Your task to perform on an android device: Search for Mexican restaurants on Maps Image 0: 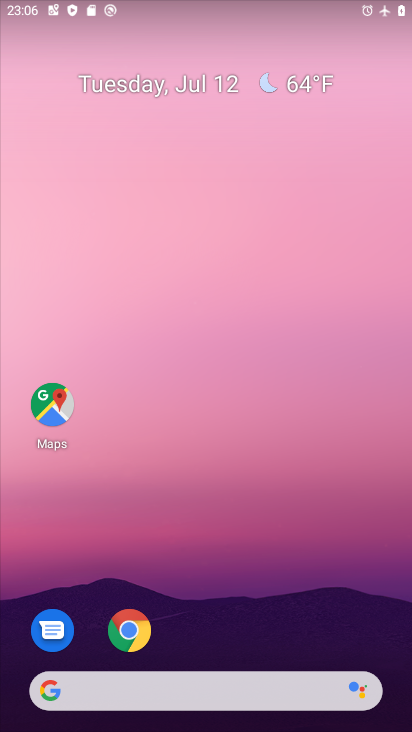
Step 0: drag from (200, 642) to (109, 116)
Your task to perform on an android device: Search for Mexican restaurants on Maps Image 1: 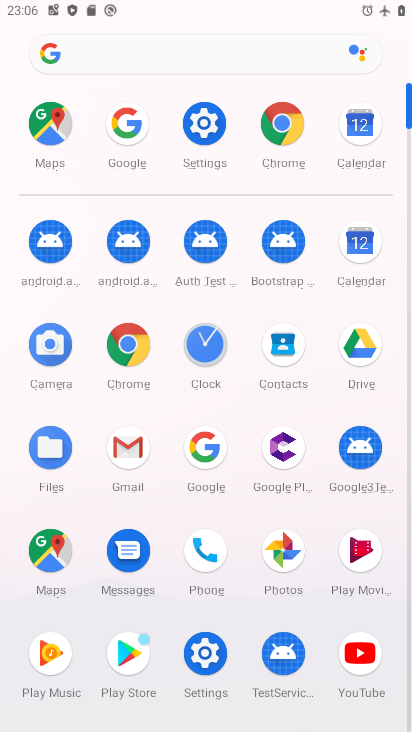
Step 1: click (32, 563)
Your task to perform on an android device: Search for Mexican restaurants on Maps Image 2: 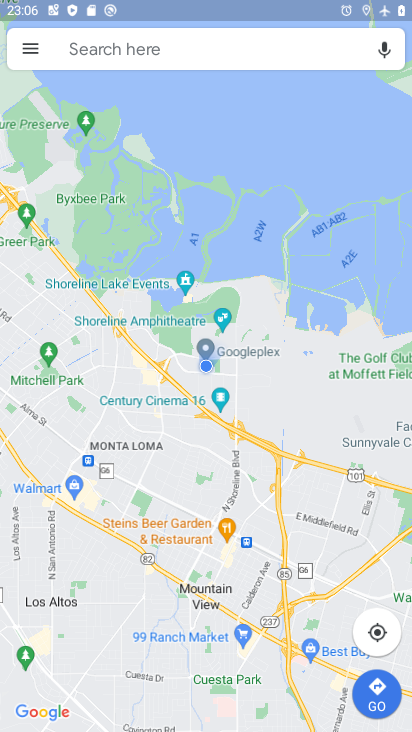
Step 2: click (185, 48)
Your task to perform on an android device: Search for Mexican restaurants on Maps Image 3: 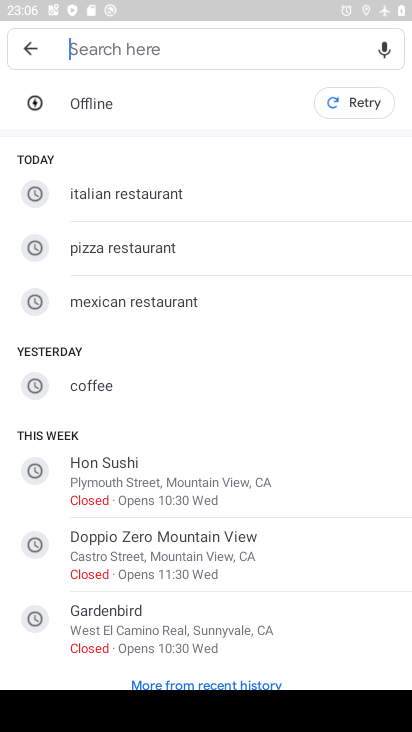
Step 3: click (81, 305)
Your task to perform on an android device: Search for Mexican restaurants on Maps Image 4: 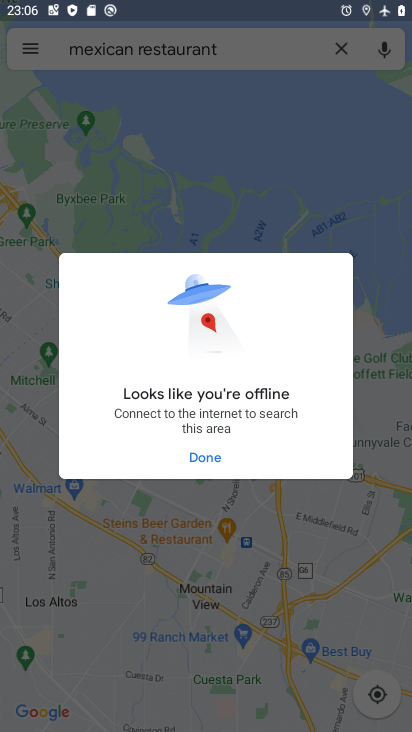
Step 4: click (214, 459)
Your task to perform on an android device: Search for Mexican restaurants on Maps Image 5: 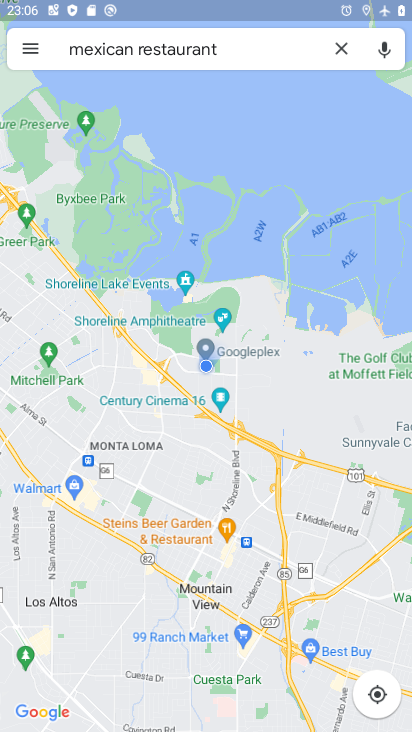
Step 5: task complete